Your task to perform on an android device: turn smart compose on in the gmail app Image 0: 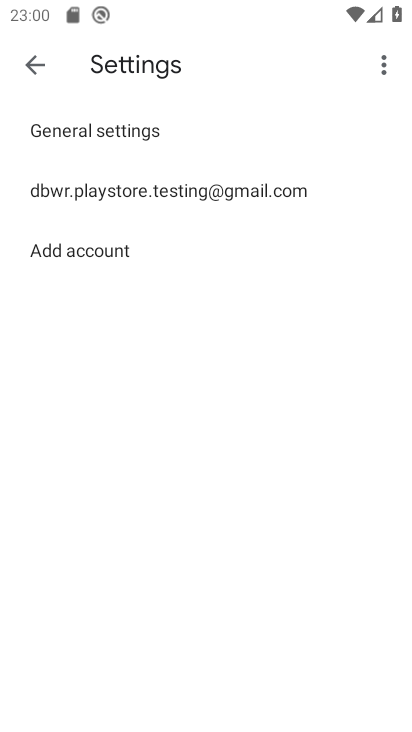
Step 0: drag from (205, 617) to (234, 426)
Your task to perform on an android device: turn smart compose on in the gmail app Image 1: 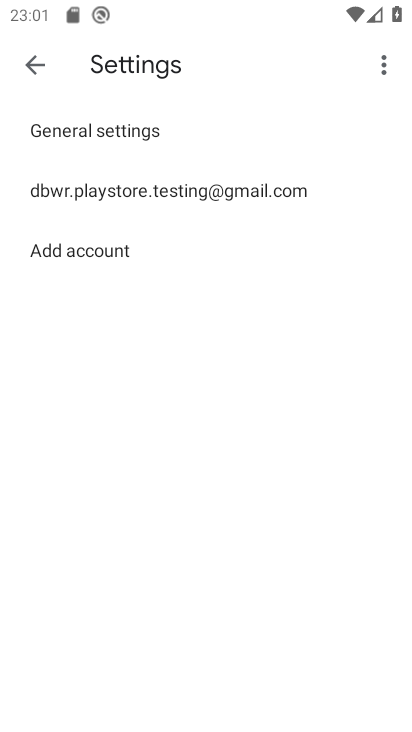
Step 1: press home button
Your task to perform on an android device: turn smart compose on in the gmail app Image 2: 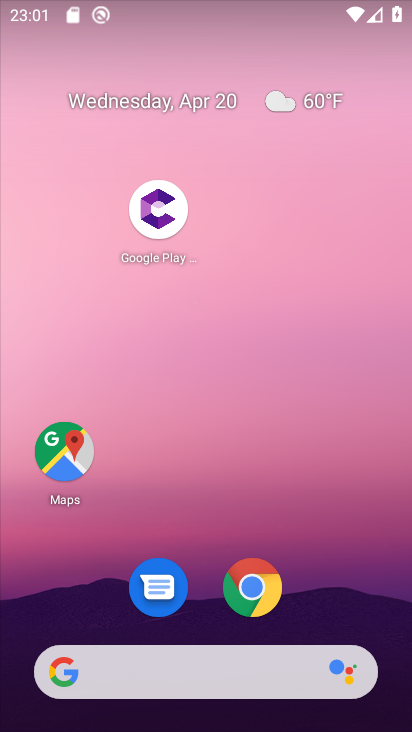
Step 2: drag from (208, 615) to (229, 130)
Your task to perform on an android device: turn smart compose on in the gmail app Image 3: 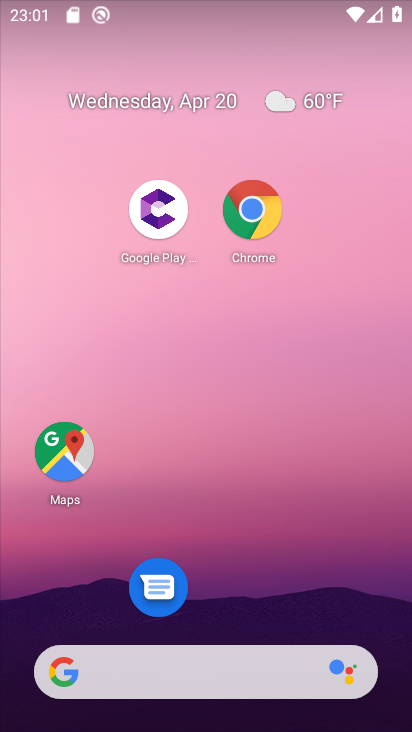
Step 3: drag from (231, 623) to (231, 62)
Your task to perform on an android device: turn smart compose on in the gmail app Image 4: 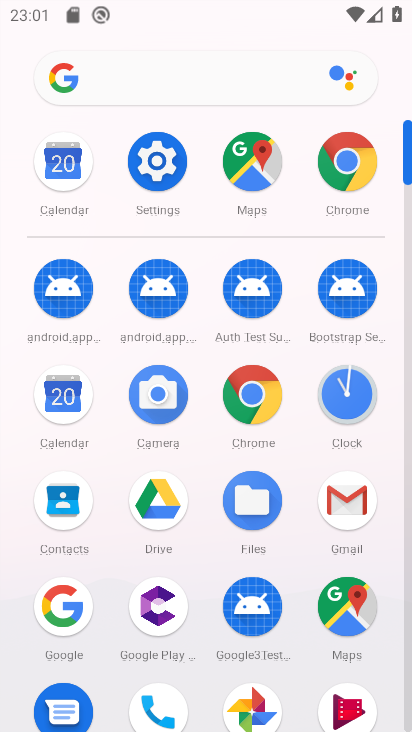
Step 4: click (342, 488)
Your task to perform on an android device: turn smart compose on in the gmail app Image 5: 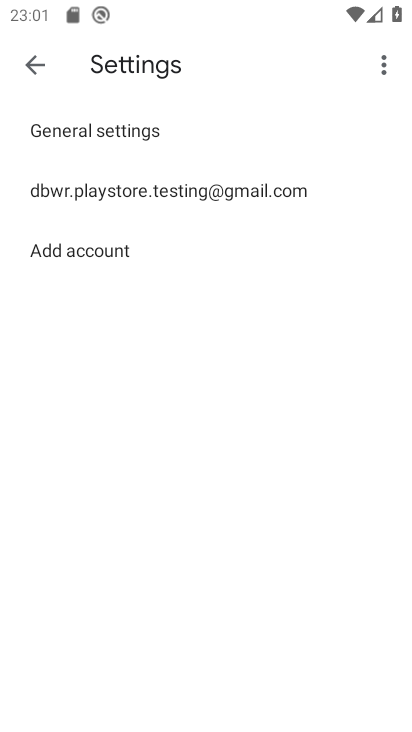
Step 5: click (220, 189)
Your task to perform on an android device: turn smart compose on in the gmail app Image 6: 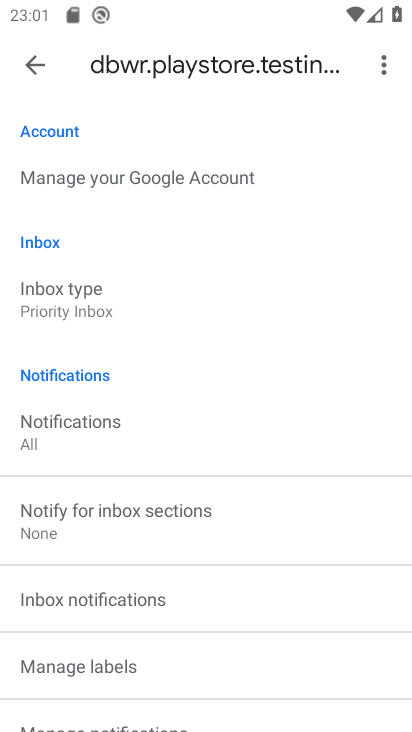
Step 6: task complete